Your task to perform on an android device: turn vacation reply on in the gmail app Image 0: 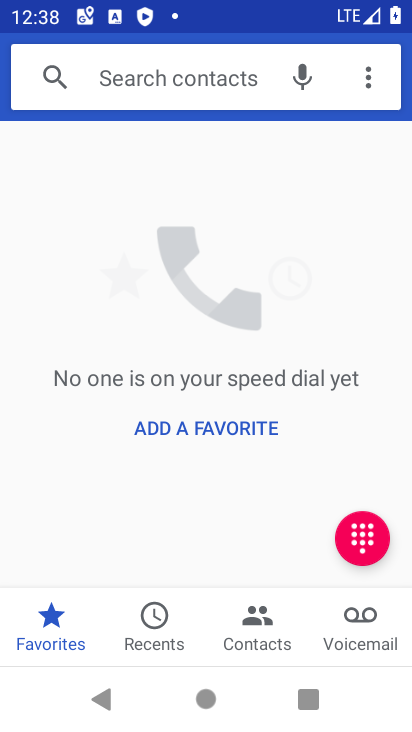
Step 0: press home button
Your task to perform on an android device: turn vacation reply on in the gmail app Image 1: 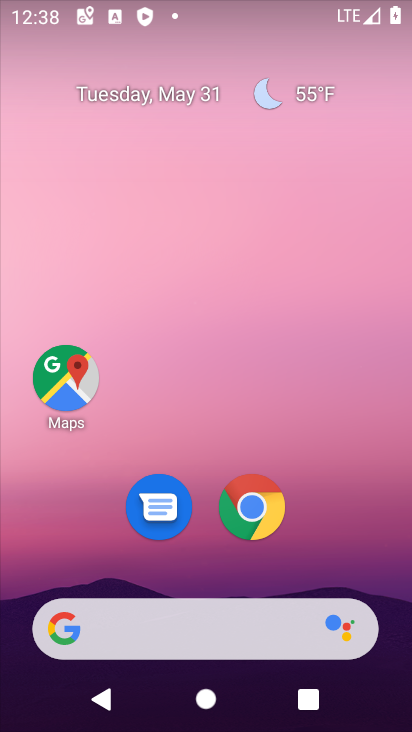
Step 1: drag from (385, 634) to (328, 70)
Your task to perform on an android device: turn vacation reply on in the gmail app Image 2: 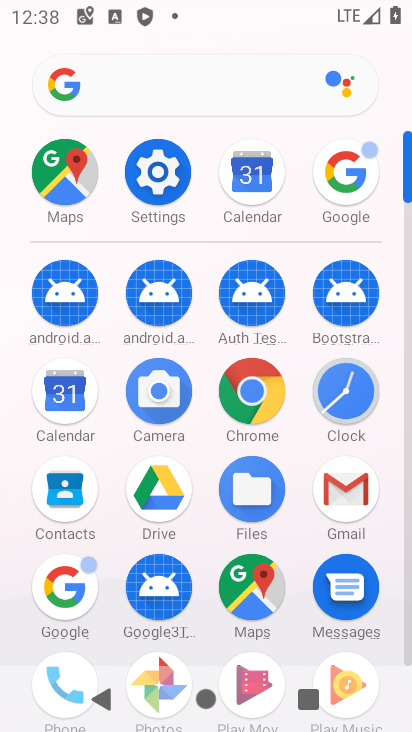
Step 2: click (357, 495)
Your task to perform on an android device: turn vacation reply on in the gmail app Image 3: 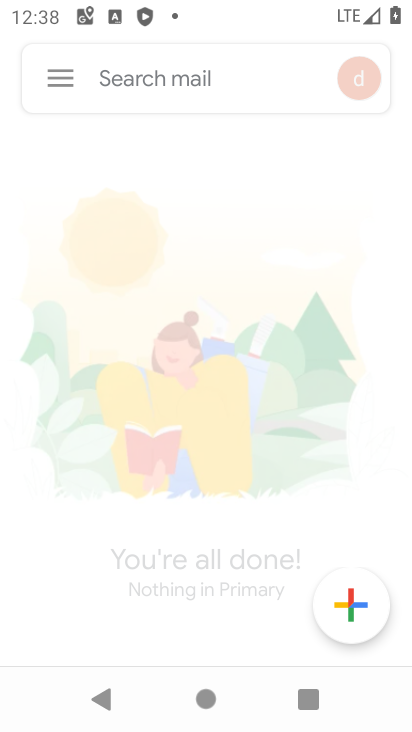
Step 3: click (50, 90)
Your task to perform on an android device: turn vacation reply on in the gmail app Image 4: 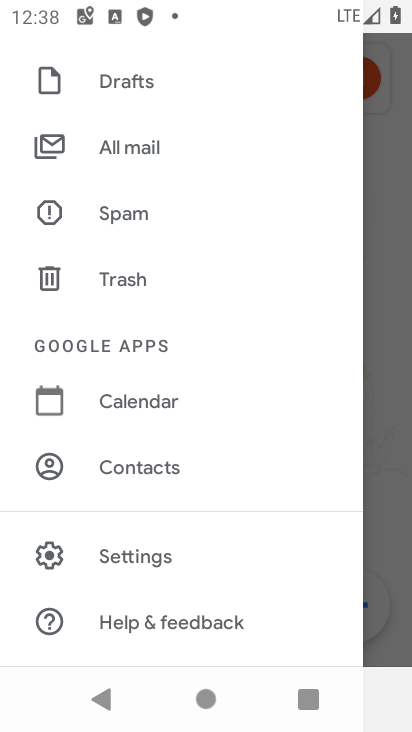
Step 4: click (180, 539)
Your task to perform on an android device: turn vacation reply on in the gmail app Image 5: 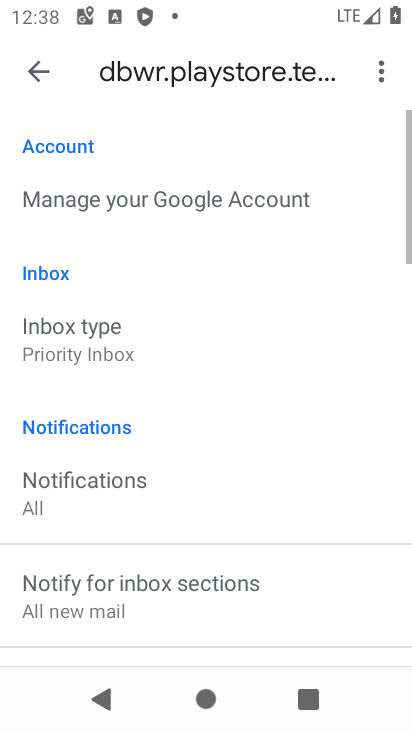
Step 5: drag from (147, 599) to (208, 38)
Your task to perform on an android device: turn vacation reply on in the gmail app Image 6: 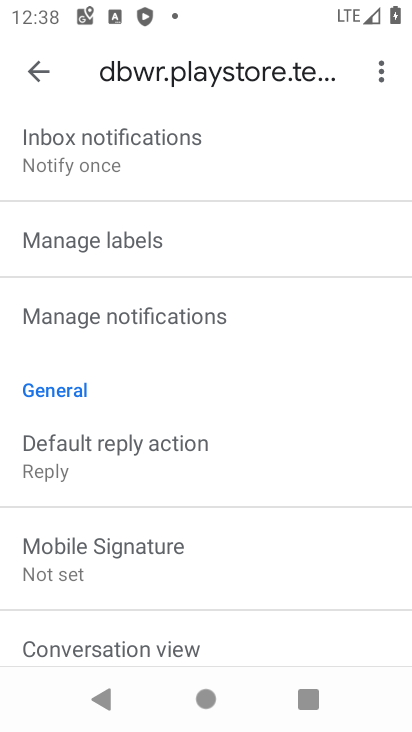
Step 6: drag from (115, 599) to (201, 43)
Your task to perform on an android device: turn vacation reply on in the gmail app Image 7: 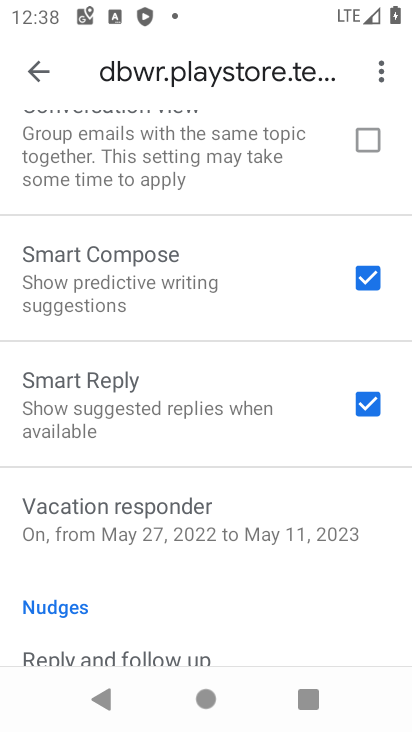
Step 7: click (173, 517)
Your task to perform on an android device: turn vacation reply on in the gmail app Image 8: 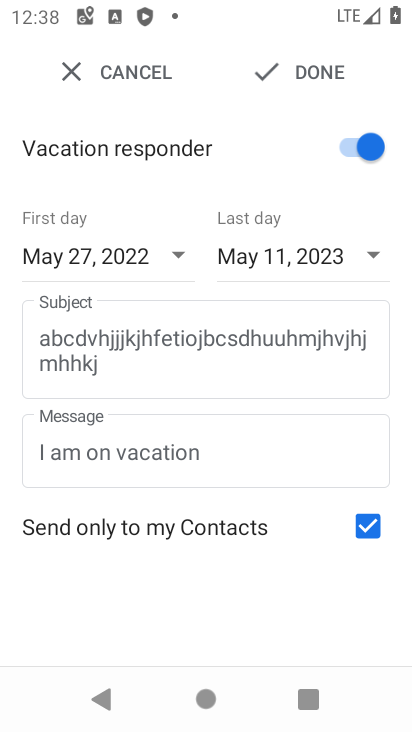
Step 8: task complete